Your task to perform on an android device: Go to Amazon Image 0: 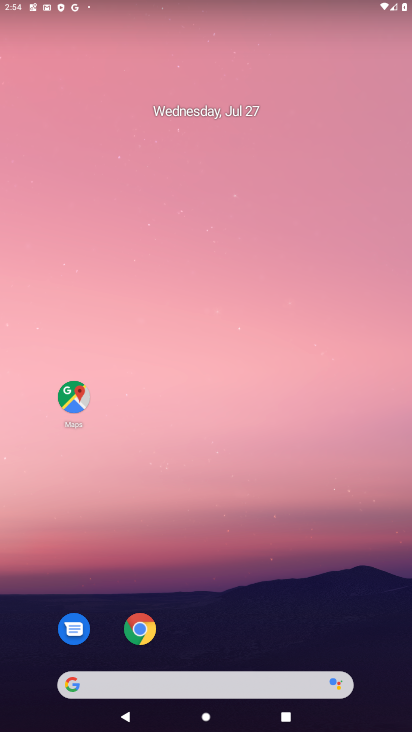
Step 0: click (145, 628)
Your task to perform on an android device: Go to Amazon Image 1: 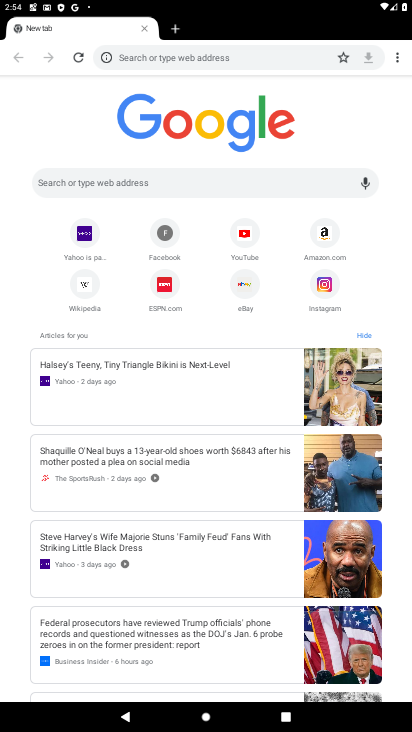
Step 1: click (303, 226)
Your task to perform on an android device: Go to Amazon Image 2: 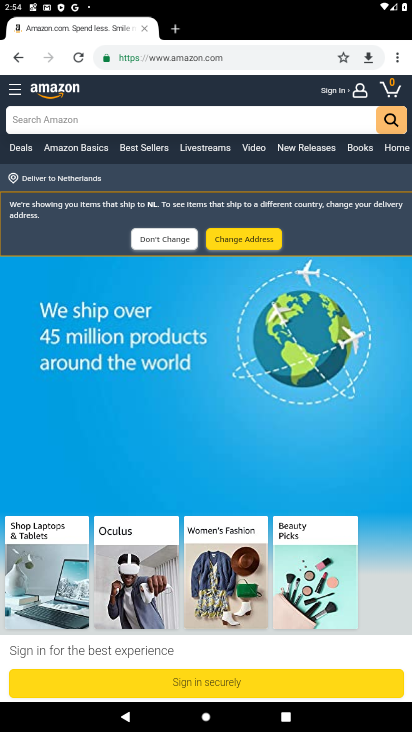
Step 2: task complete